Your task to perform on an android device: Open maps Image 0: 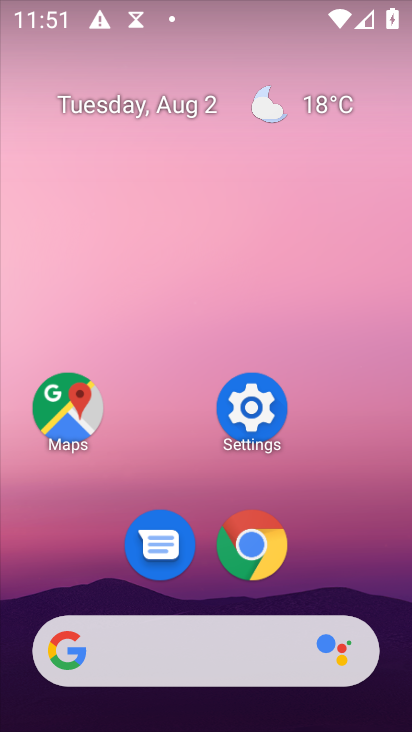
Step 0: press home button
Your task to perform on an android device: Open maps Image 1: 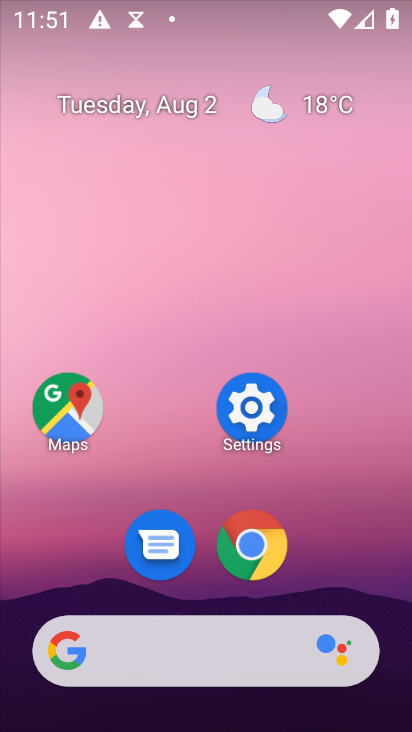
Step 1: click (64, 412)
Your task to perform on an android device: Open maps Image 2: 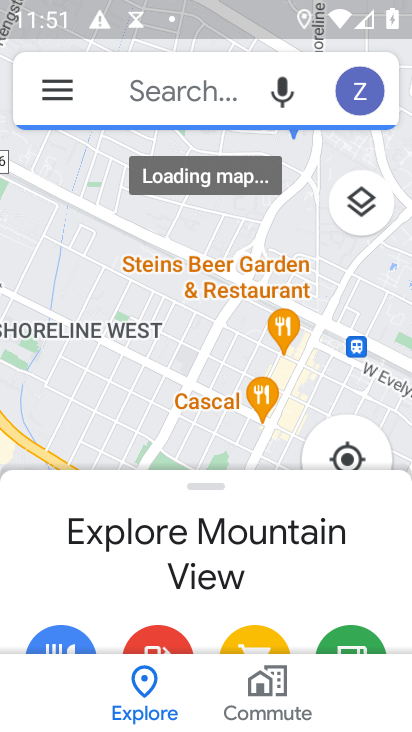
Step 2: task complete